Your task to perform on an android device: Check the news Image 0: 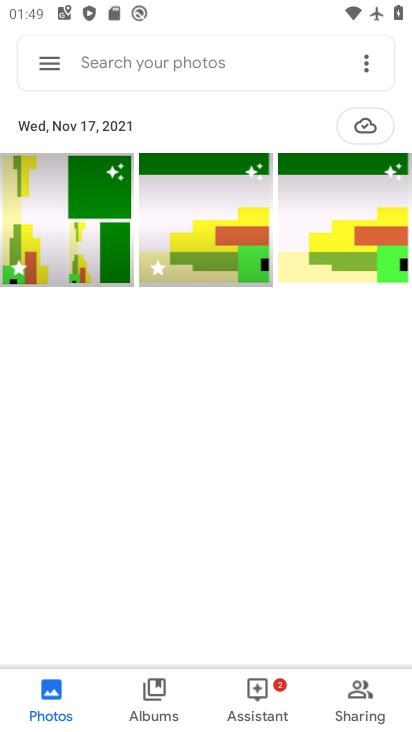
Step 0: press home button
Your task to perform on an android device: Check the news Image 1: 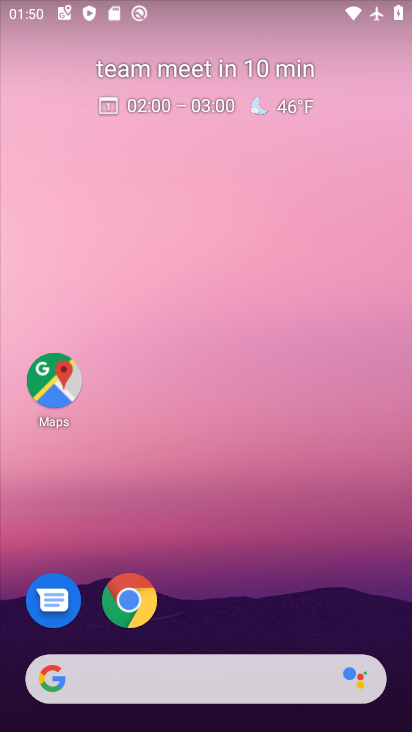
Step 1: task complete